Your task to perform on an android device: clear history in the chrome app Image 0: 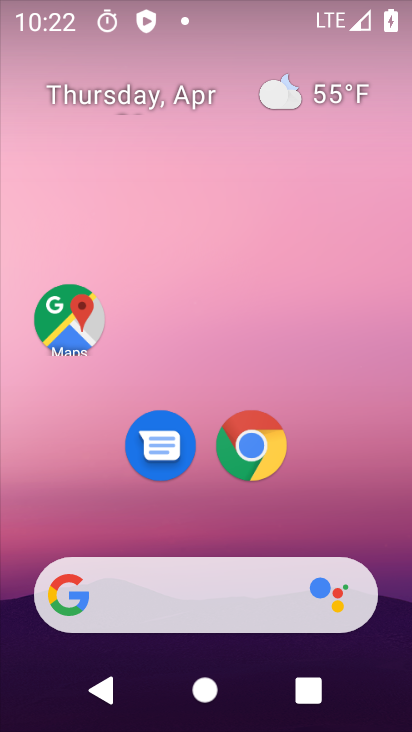
Step 0: click (248, 449)
Your task to perform on an android device: clear history in the chrome app Image 1: 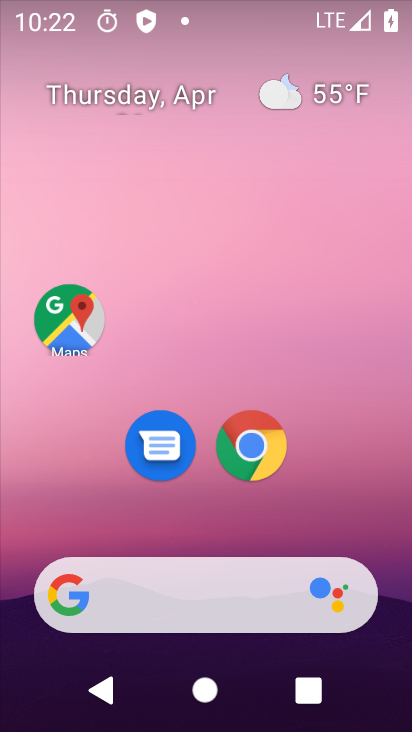
Step 1: click (248, 449)
Your task to perform on an android device: clear history in the chrome app Image 2: 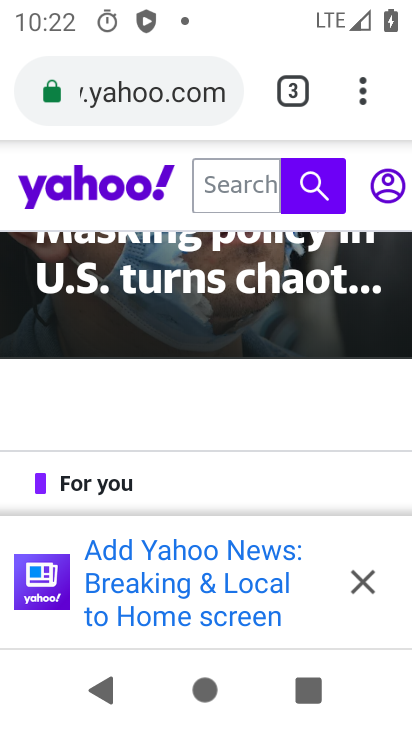
Step 2: click (359, 91)
Your task to perform on an android device: clear history in the chrome app Image 3: 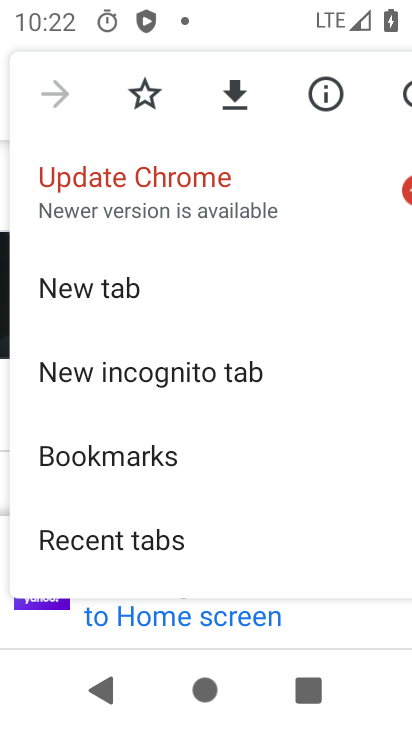
Step 3: drag from (191, 451) to (182, 157)
Your task to perform on an android device: clear history in the chrome app Image 4: 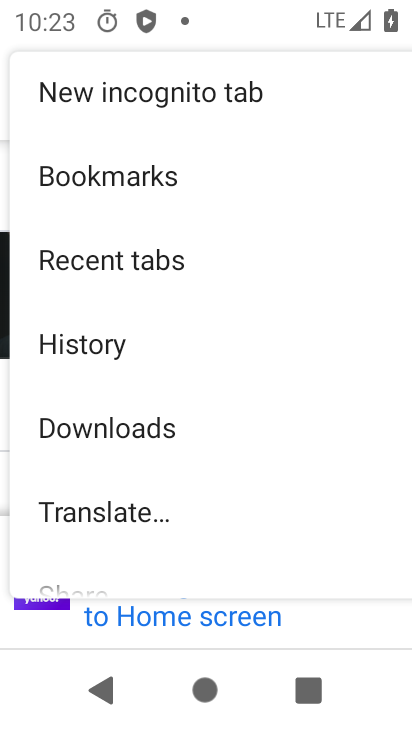
Step 4: click (105, 345)
Your task to perform on an android device: clear history in the chrome app Image 5: 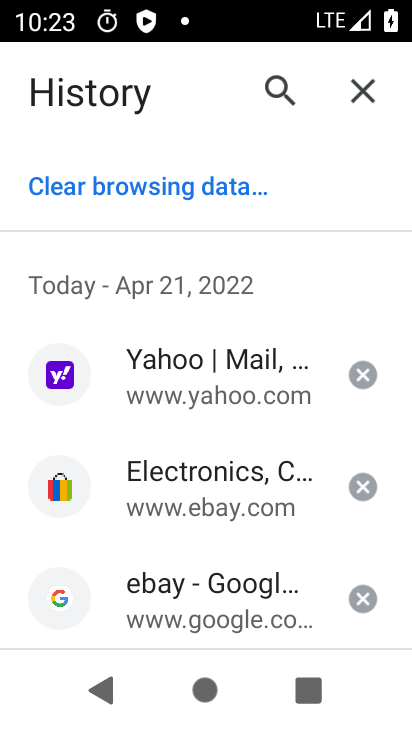
Step 5: click (108, 195)
Your task to perform on an android device: clear history in the chrome app Image 6: 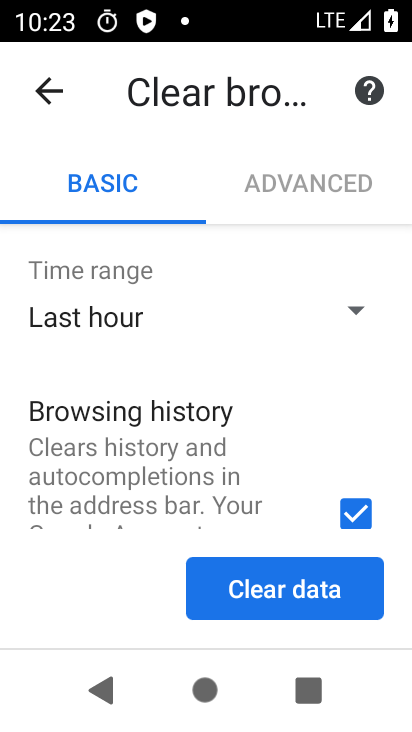
Step 6: drag from (155, 406) to (138, 140)
Your task to perform on an android device: clear history in the chrome app Image 7: 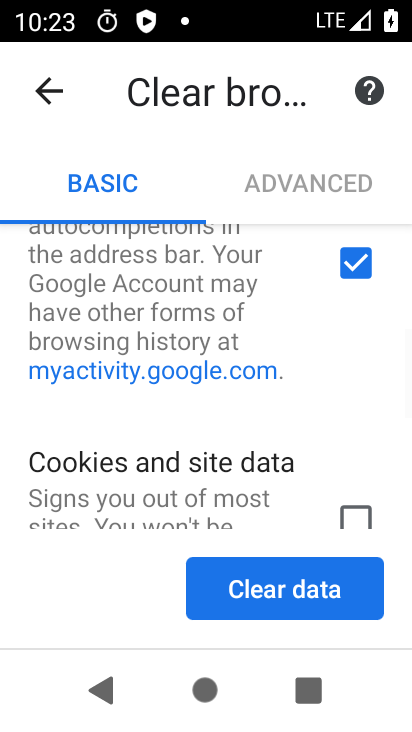
Step 7: drag from (165, 411) to (166, 126)
Your task to perform on an android device: clear history in the chrome app Image 8: 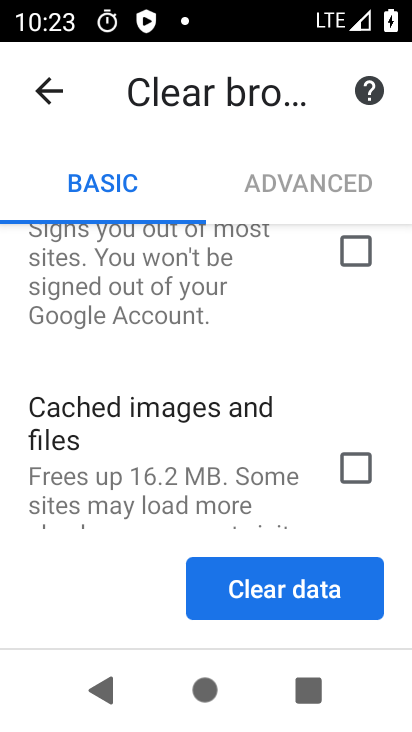
Step 8: click (293, 584)
Your task to perform on an android device: clear history in the chrome app Image 9: 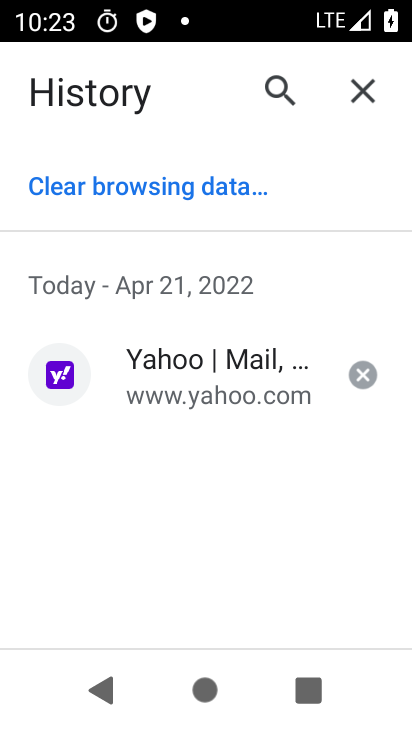
Step 9: click (136, 188)
Your task to perform on an android device: clear history in the chrome app Image 10: 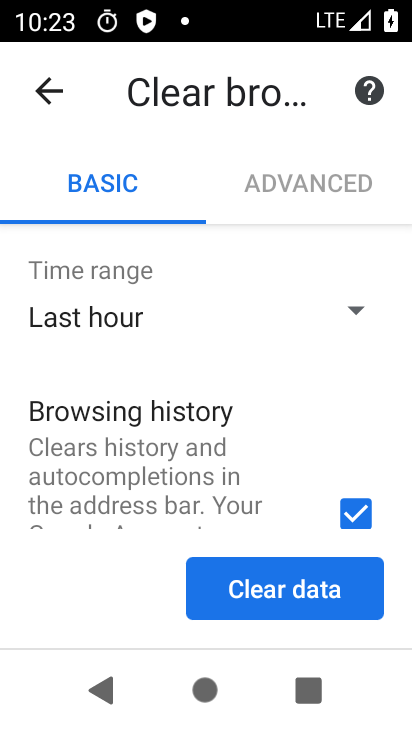
Step 10: drag from (271, 484) to (248, 128)
Your task to perform on an android device: clear history in the chrome app Image 11: 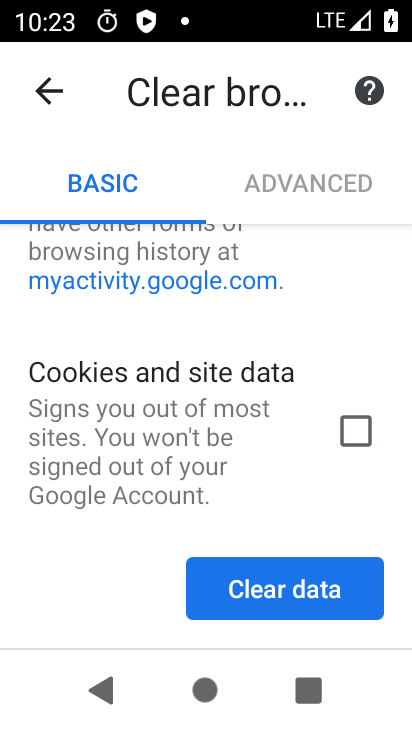
Step 11: click (262, 592)
Your task to perform on an android device: clear history in the chrome app Image 12: 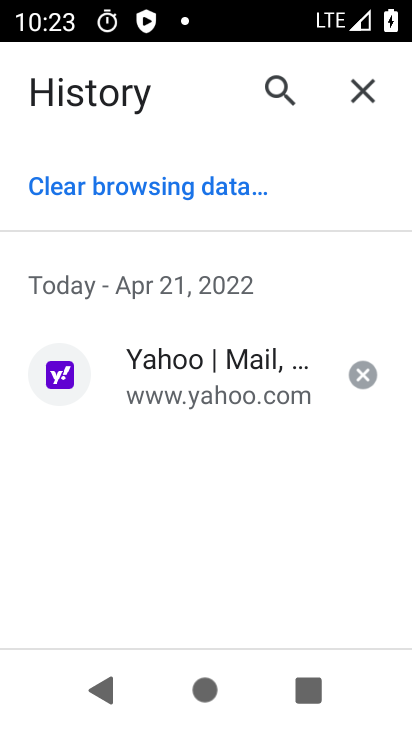
Step 12: click (104, 186)
Your task to perform on an android device: clear history in the chrome app Image 13: 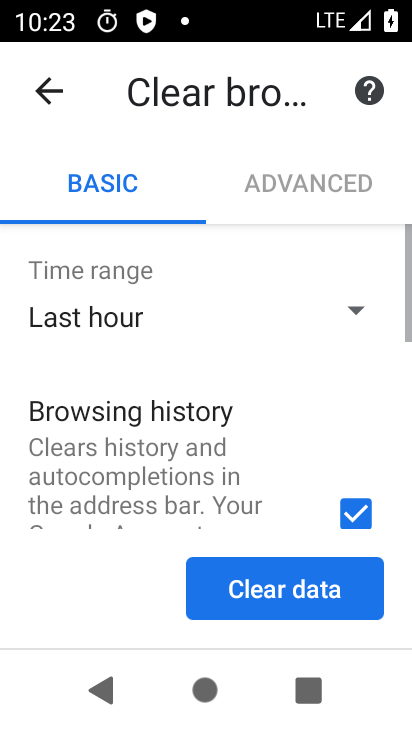
Step 13: drag from (185, 425) to (146, 88)
Your task to perform on an android device: clear history in the chrome app Image 14: 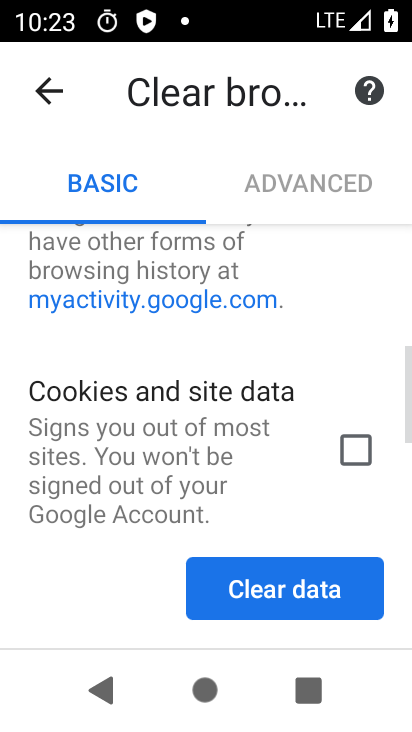
Step 14: drag from (122, 366) to (119, 86)
Your task to perform on an android device: clear history in the chrome app Image 15: 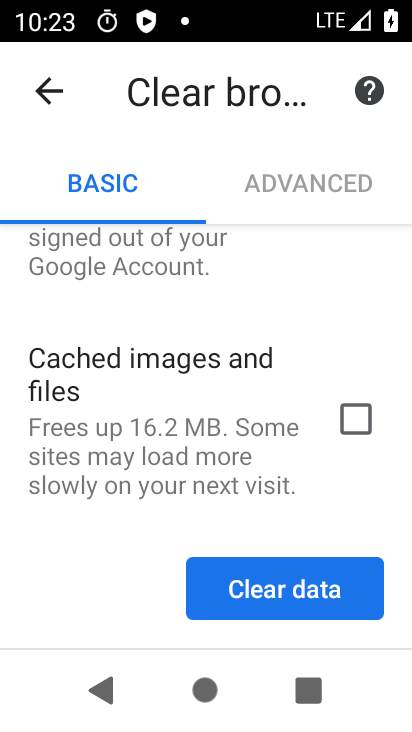
Step 15: click (283, 594)
Your task to perform on an android device: clear history in the chrome app Image 16: 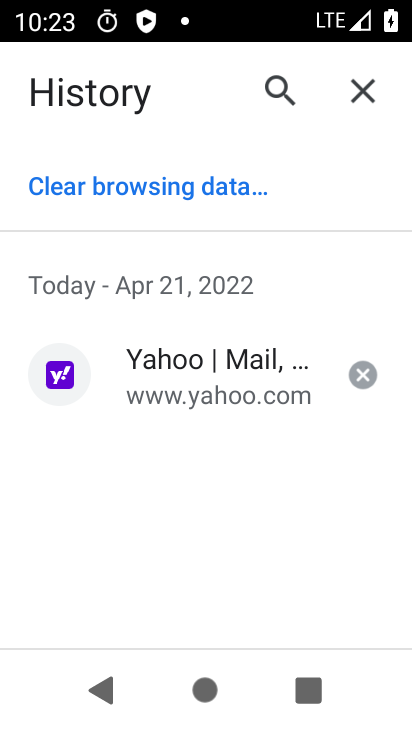
Step 16: click (361, 369)
Your task to perform on an android device: clear history in the chrome app Image 17: 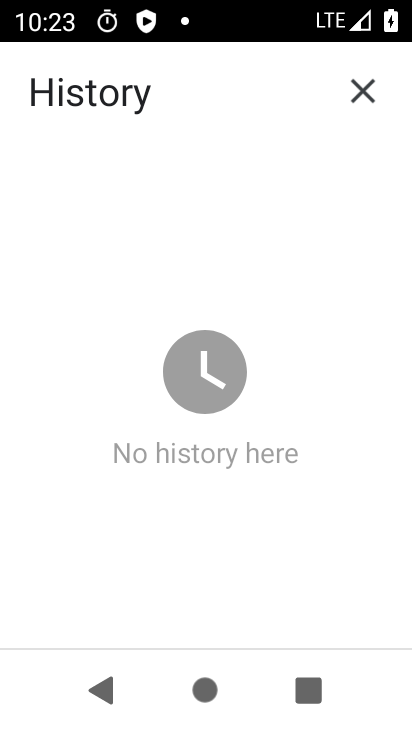
Step 17: task complete